Your task to perform on an android device: change the clock display to digital Image 0: 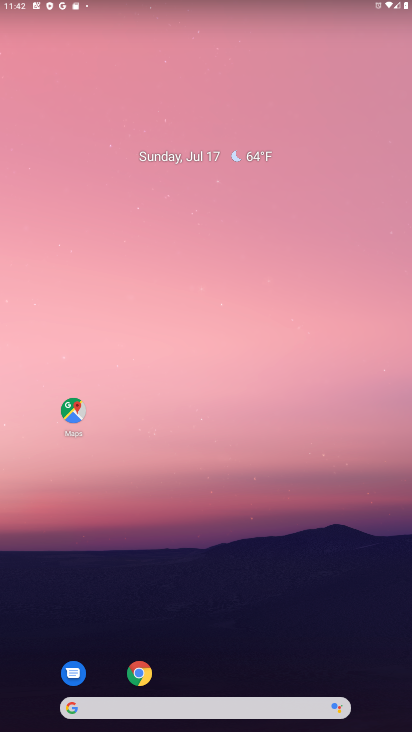
Step 0: drag from (204, 682) to (181, 159)
Your task to perform on an android device: change the clock display to digital Image 1: 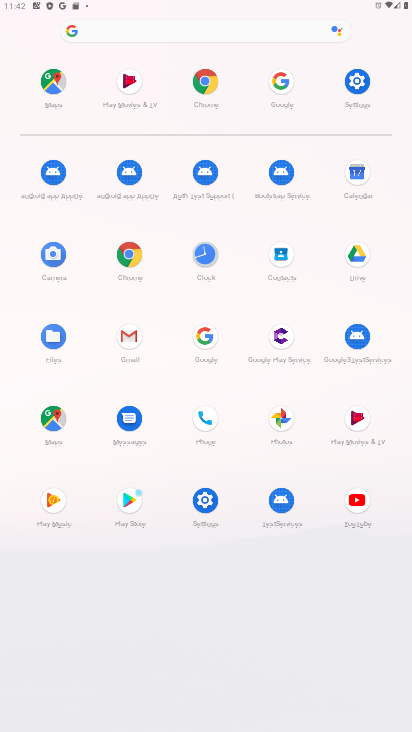
Step 1: click (203, 249)
Your task to perform on an android device: change the clock display to digital Image 2: 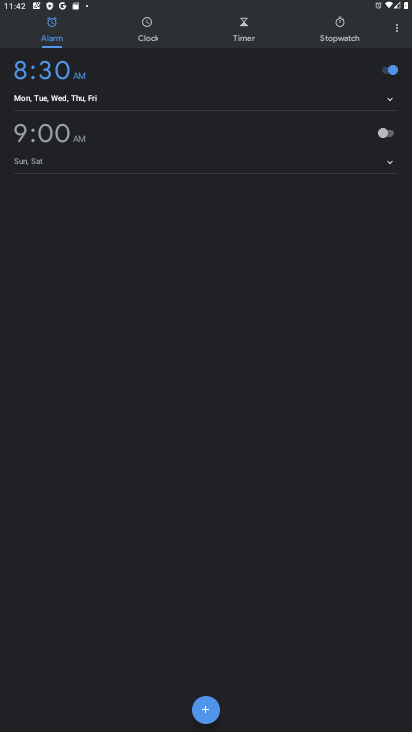
Step 2: click (394, 27)
Your task to perform on an android device: change the clock display to digital Image 3: 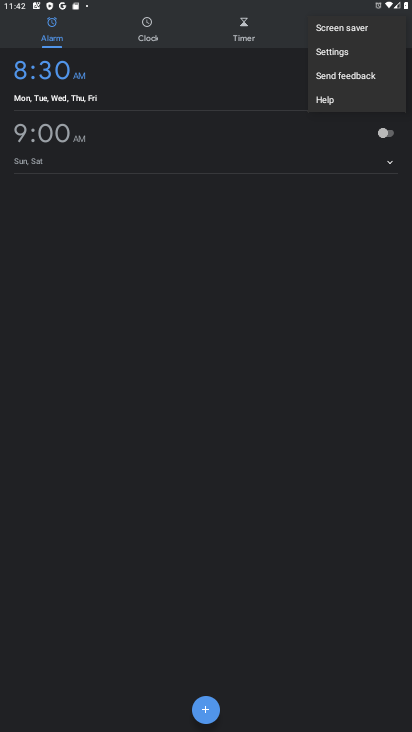
Step 3: click (325, 48)
Your task to perform on an android device: change the clock display to digital Image 4: 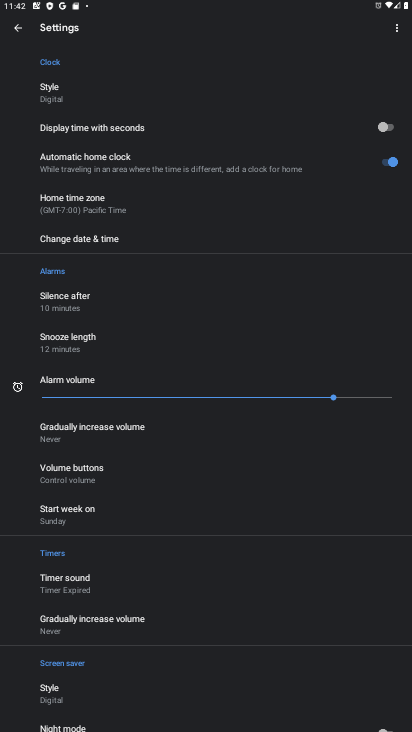
Step 4: click (80, 91)
Your task to perform on an android device: change the clock display to digital Image 5: 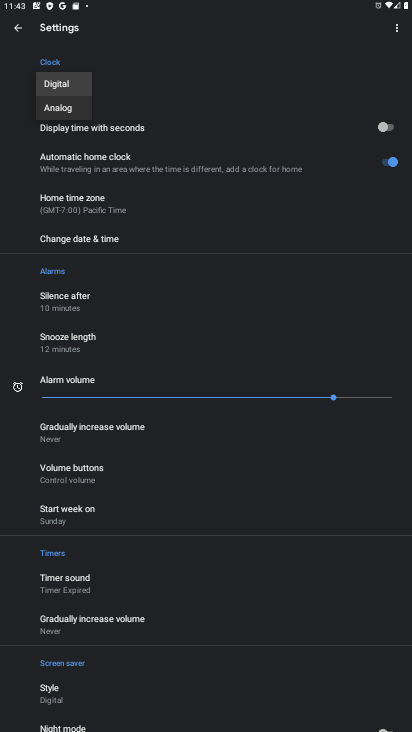
Step 5: click (57, 105)
Your task to perform on an android device: change the clock display to digital Image 6: 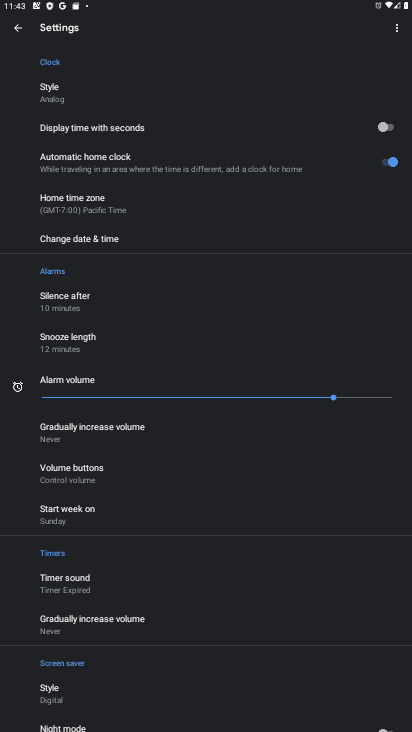
Step 6: task complete